Your task to perform on an android device: Open Android settings Image 0: 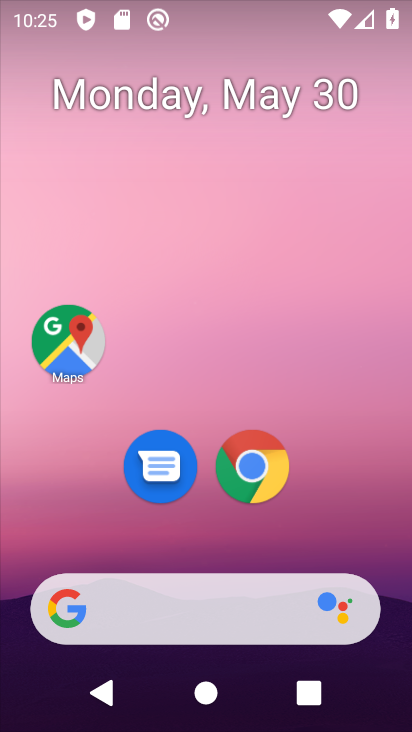
Step 0: drag from (148, 275) to (135, 50)
Your task to perform on an android device: Open Android settings Image 1: 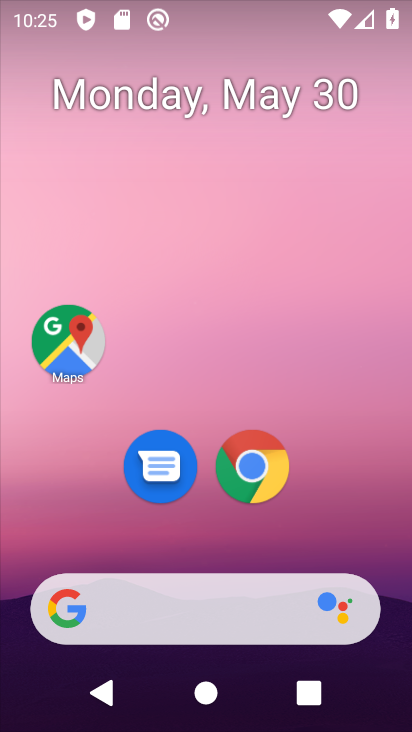
Step 1: drag from (154, 697) to (245, 80)
Your task to perform on an android device: Open Android settings Image 2: 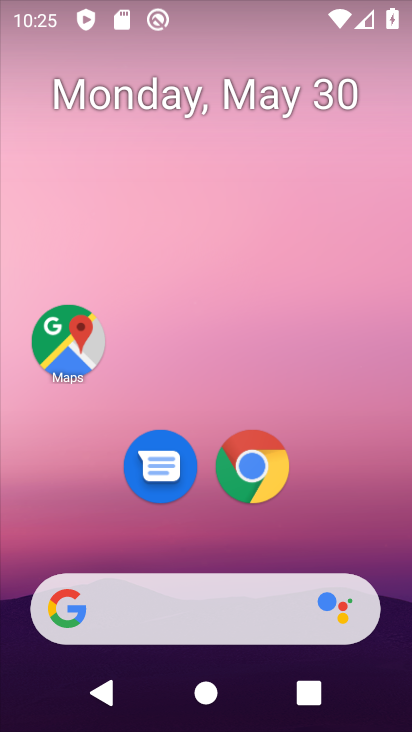
Step 2: drag from (155, 729) to (127, 0)
Your task to perform on an android device: Open Android settings Image 3: 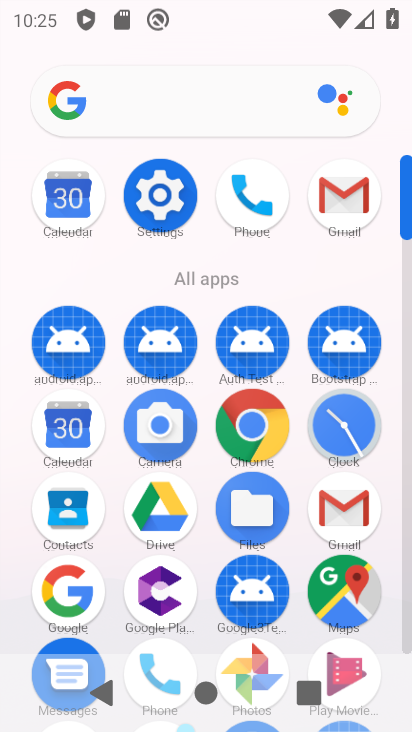
Step 3: click (180, 183)
Your task to perform on an android device: Open Android settings Image 4: 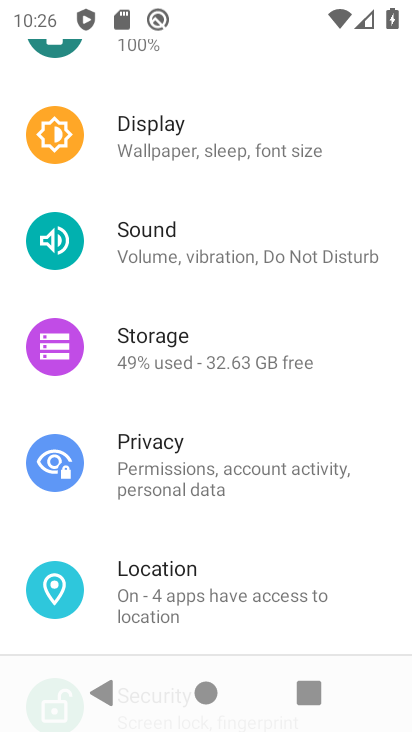
Step 4: task complete